Your task to perform on an android device: What is the recent news? Image 0: 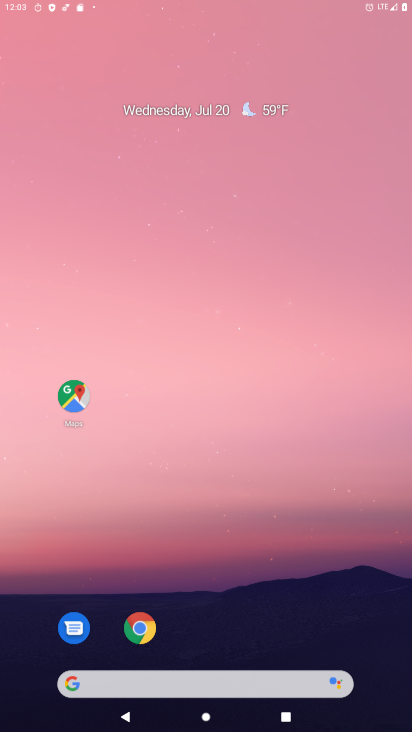
Step 0: drag from (238, 6) to (27, 323)
Your task to perform on an android device: What is the recent news? Image 1: 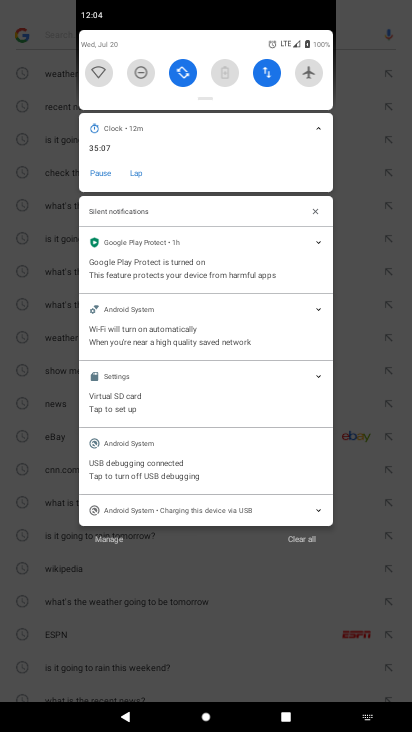
Step 1: press home button
Your task to perform on an android device: What is the recent news? Image 2: 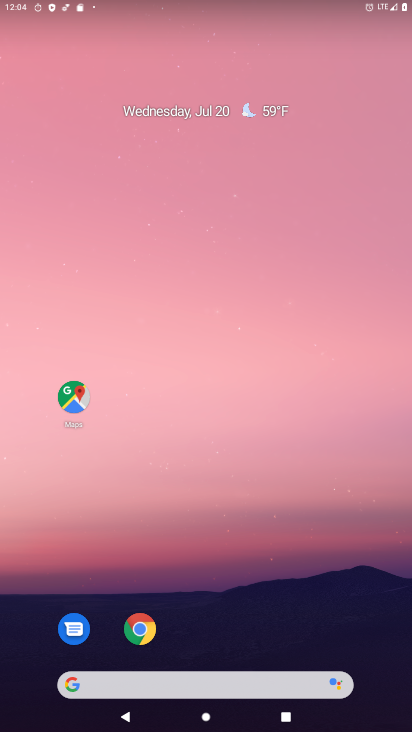
Step 2: drag from (183, 526) to (185, 5)
Your task to perform on an android device: What is the recent news? Image 3: 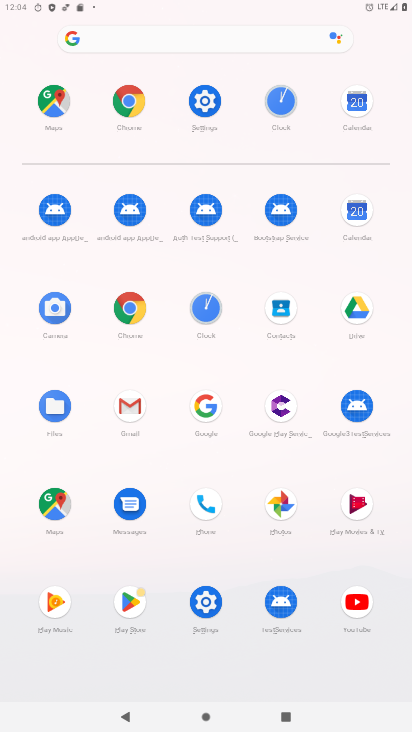
Step 3: click (128, 94)
Your task to perform on an android device: What is the recent news? Image 4: 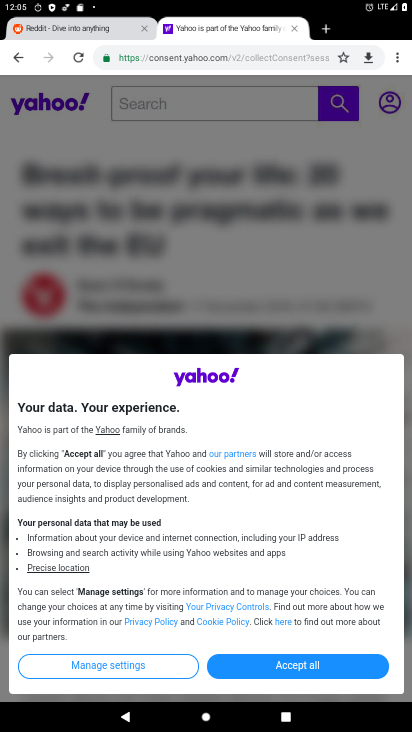
Step 4: click (14, 60)
Your task to perform on an android device: What is the recent news? Image 5: 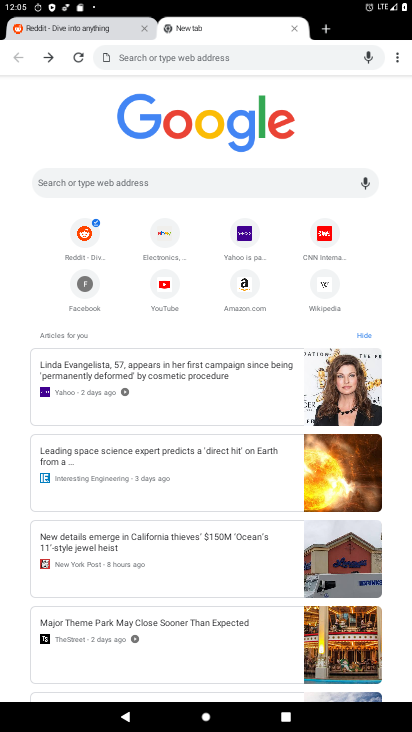
Step 5: task complete